Your task to perform on an android device: Open maps Image 0: 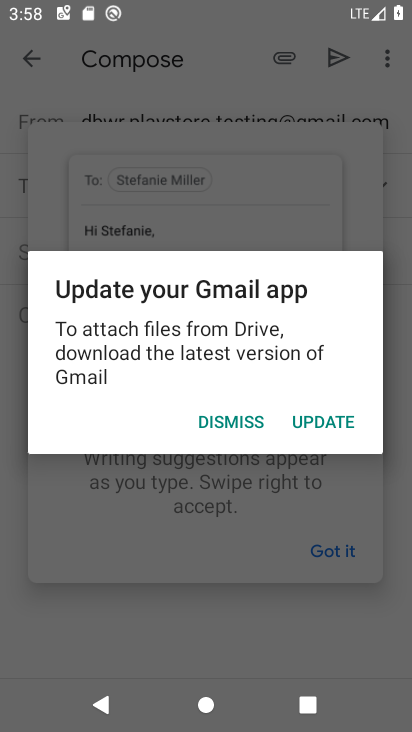
Step 0: press home button
Your task to perform on an android device: Open maps Image 1: 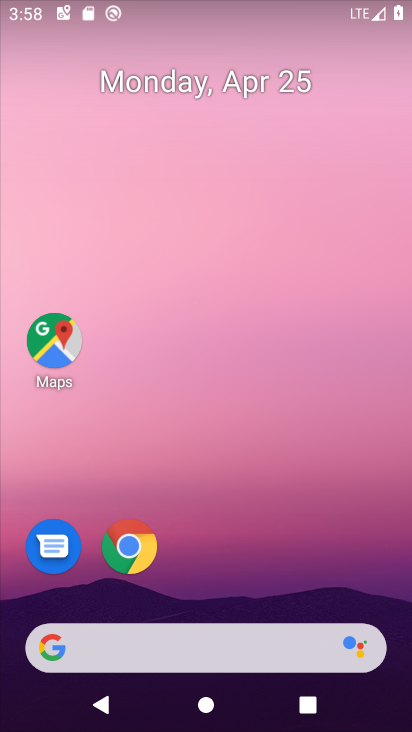
Step 1: click (31, 341)
Your task to perform on an android device: Open maps Image 2: 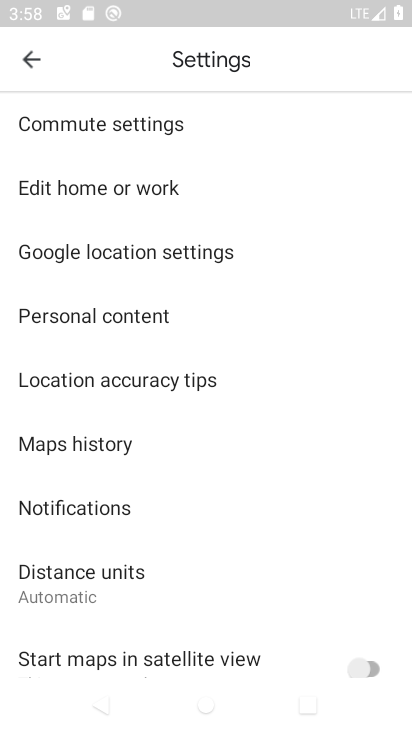
Step 2: click (31, 56)
Your task to perform on an android device: Open maps Image 3: 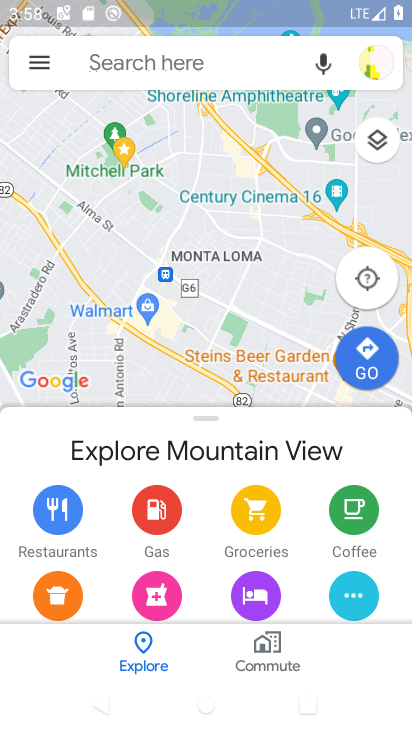
Step 3: task complete